Your task to perform on an android device: turn on priority inbox in the gmail app Image 0: 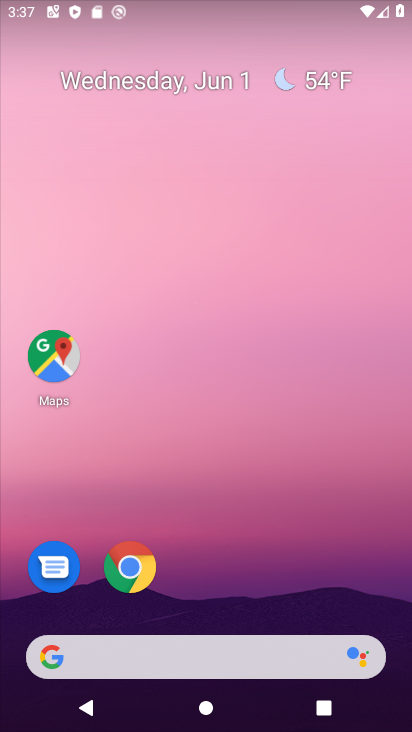
Step 0: click (233, 253)
Your task to perform on an android device: turn on priority inbox in the gmail app Image 1: 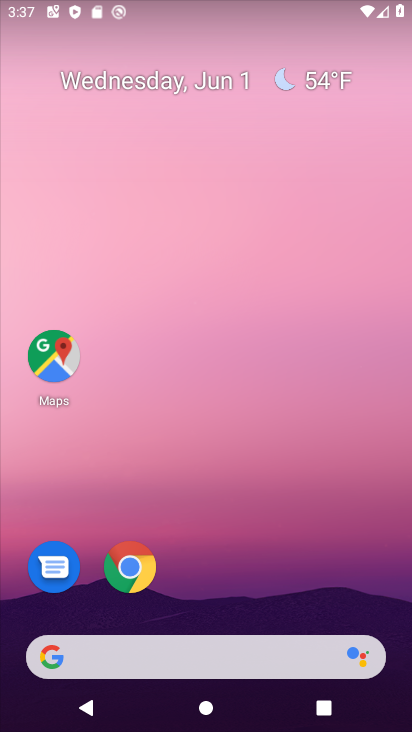
Step 1: drag from (229, 646) to (227, 300)
Your task to perform on an android device: turn on priority inbox in the gmail app Image 2: 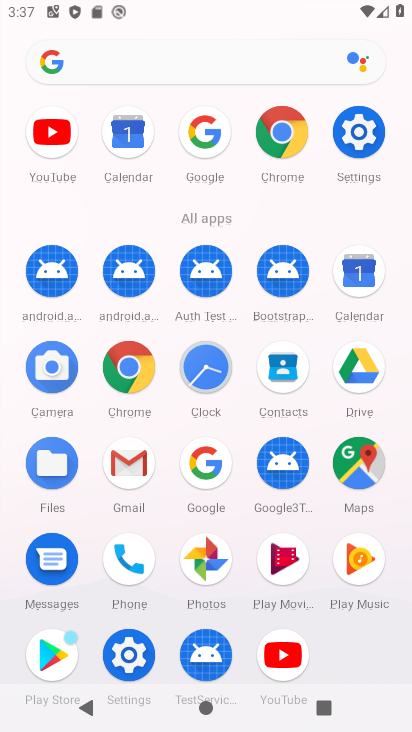
Step 2: click (199, 467)
Your task to perform on an android device: turn on priority inbox in the gmail app Image 3: 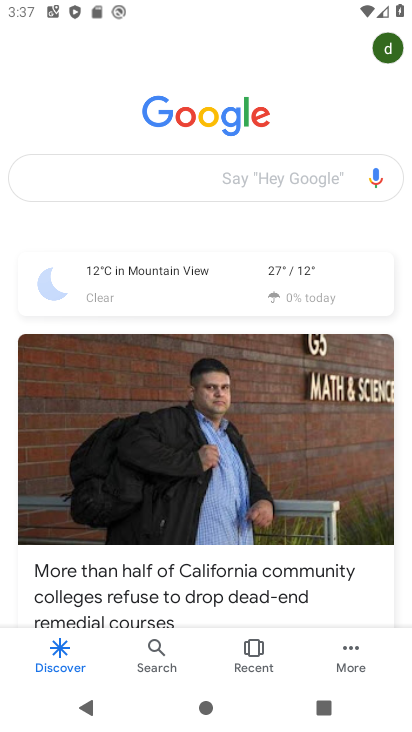
Step 3: click (216, 184)
Your task to perform on an android device: turn on priority inbox in the gmail app Image 4: 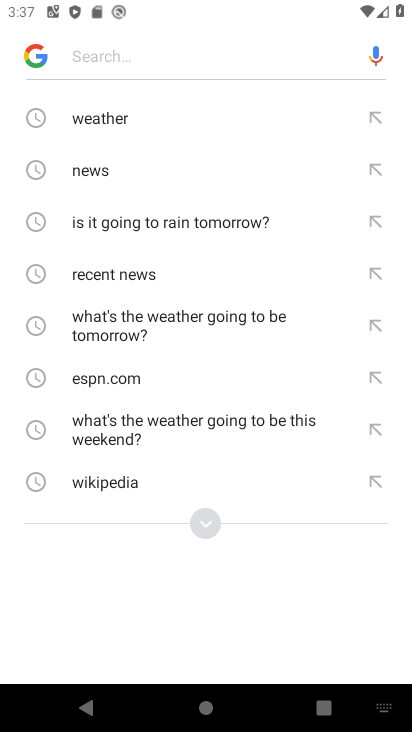
Step 4: click (202, 526)
Your task to perform on an android device: turn on priority inbox in the gmail app Image 5: 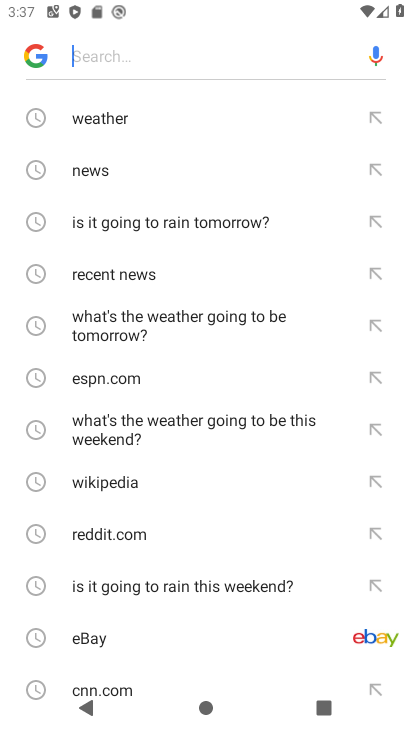
Step 5: drag from (153, 659) to (143, 271)
Your task to perform on an android device: turn on priority inbox in the gmail app Image 6: 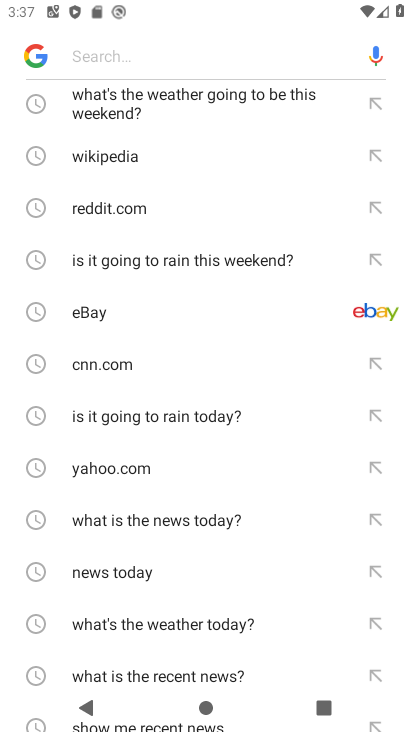
Step 6: drag from (159, 685) to (209, 311)
Your task to perform on an android device: turn on priority inbox in the gmail app Image 7: 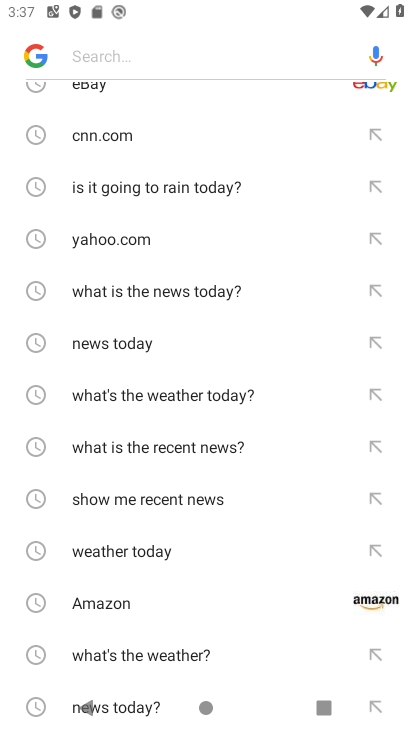
Step 7: click (153, 195)
Your task to perform on an android device: turn on priority inbox in the gmail app Image 8: 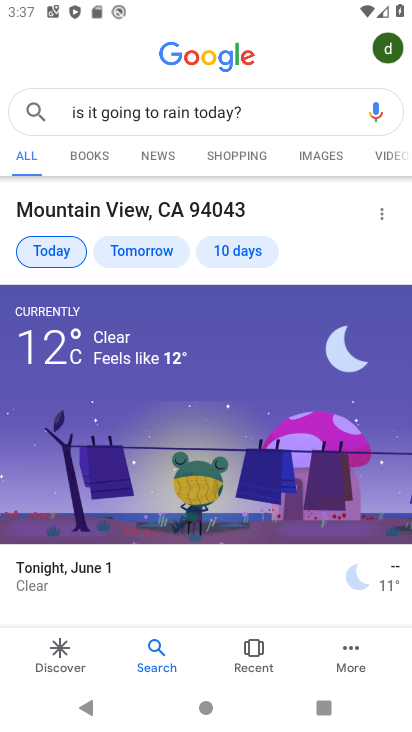
Step 8: task complete